Your task to perform on an android device: check battery use Image 0: 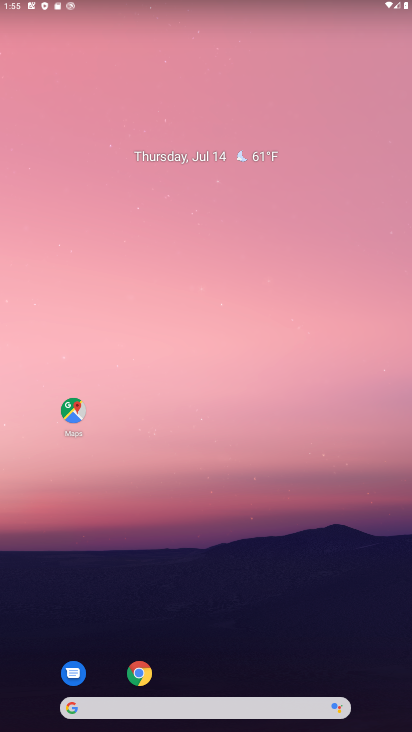
Step 0: drag from (221, 16) to (178, 591)
Your task to perform on an android device: check battery use Image 1: 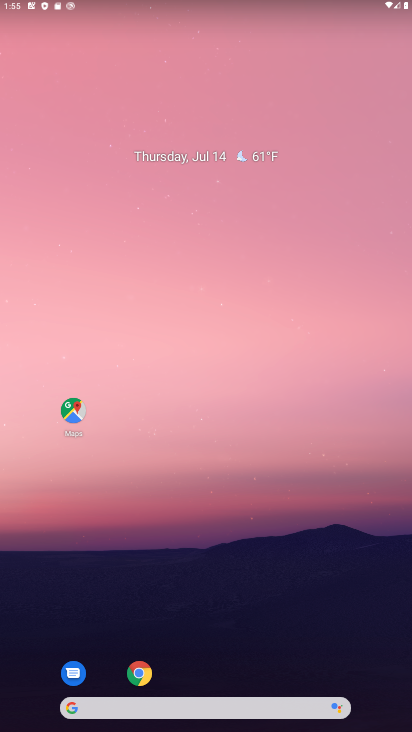
Step 1: drag from (144, 9) to (109, 542)
Your task to perform on an android device: check battery use Image 2: 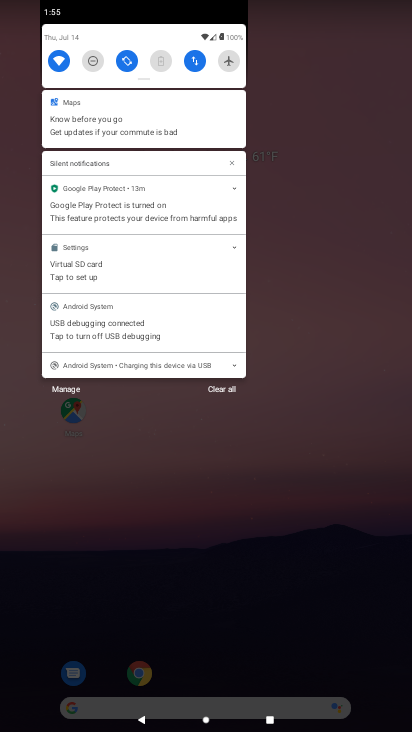
Step 2: click (167, 59)
Your task to perform on an android device: check battery use Image 3: 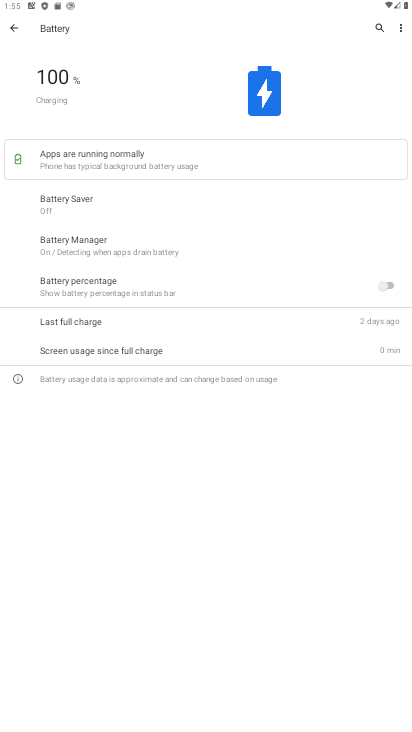
Step 3: click (401, 36)
Your task to perform on an android device: check battery use Image 4: 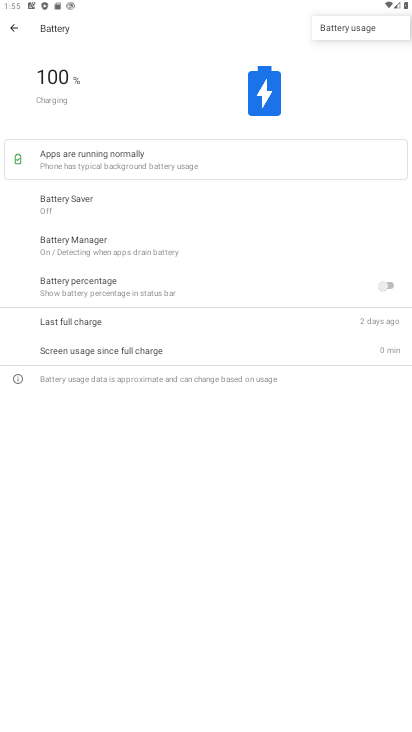
Step 4: click (343, 23)
Your task to perform on an android device: check battery use Image 5: 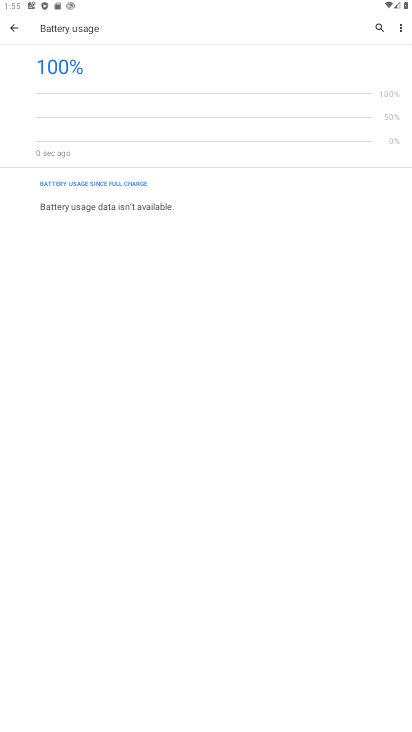
Step 5: task complete